Your task to perform on an android device: turn off picture-in-picture Image 0: 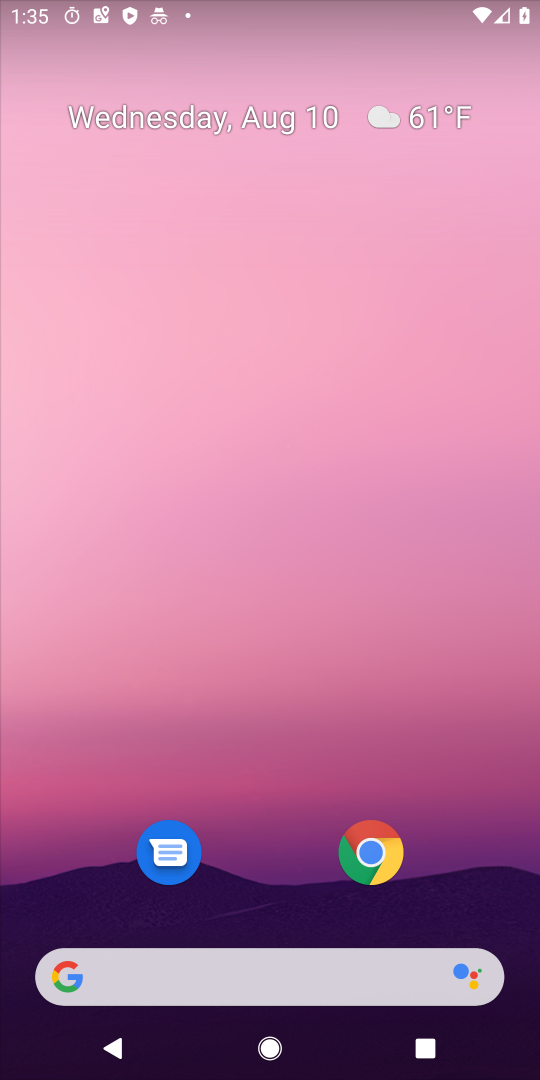
Step 0: click (252, 876)
Your task to perform on an android device: turn off picture-in-picture Image 1: 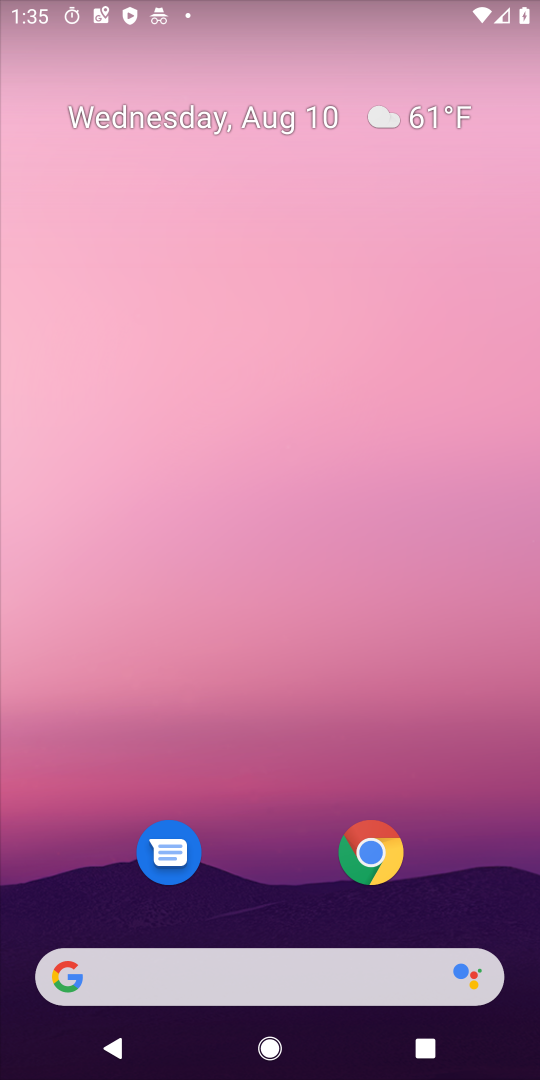
Step 1: click (355, 857)
Your task to perform on an android device: turn off picture-in-picture Image 2: 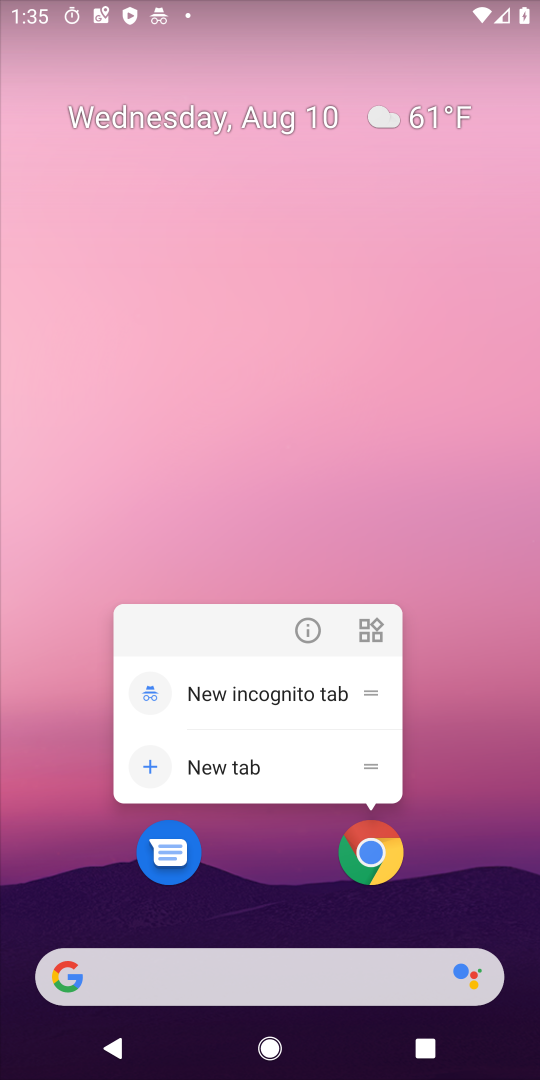
Step 2: click (303, 623)
Your task to perform on an android device: turn off picture-in-picture Image 3: 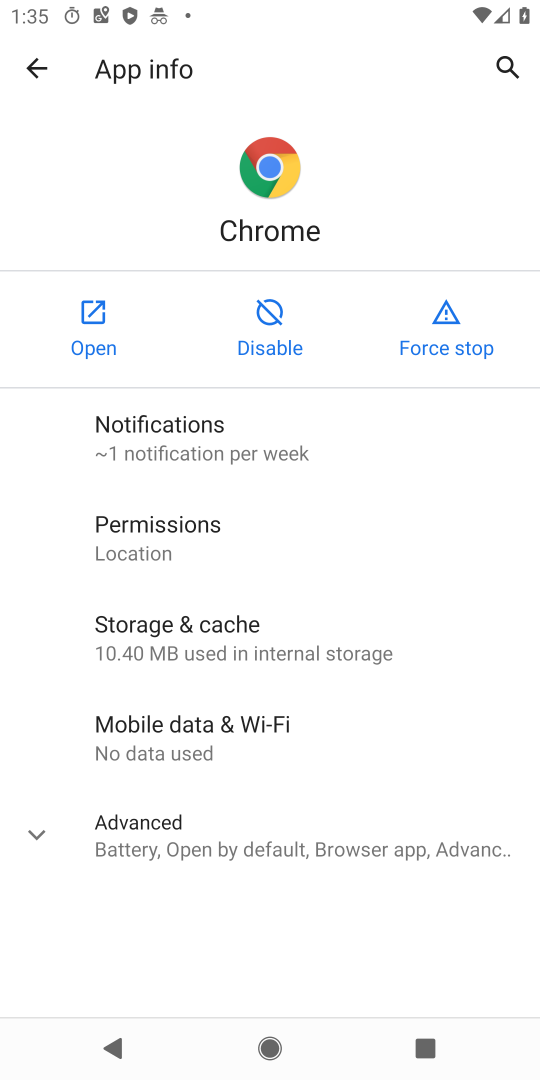
Step 3: click (173, 852)
Your task to perform on an android device: turn off picture-in-picture Image 4: 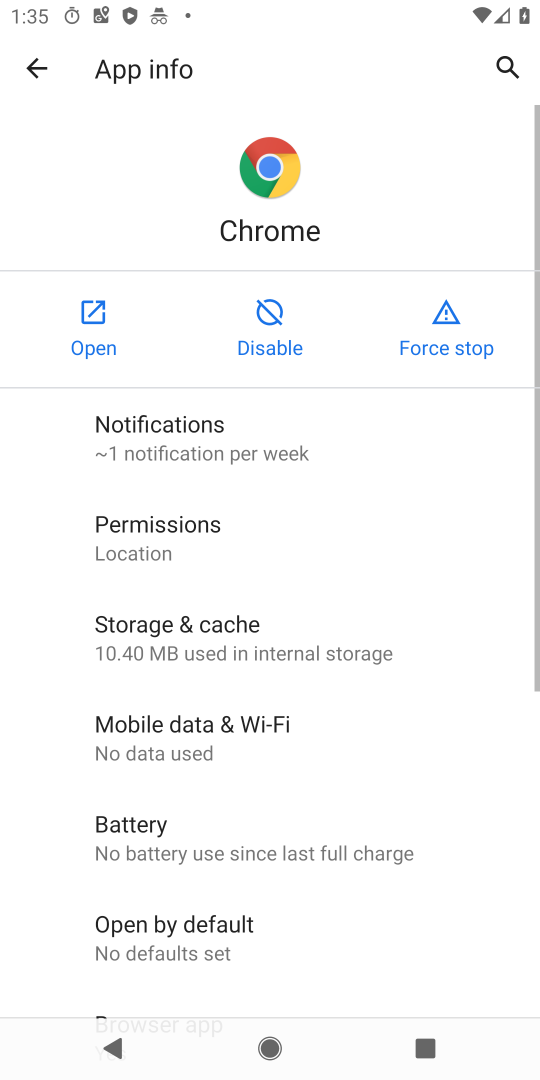
Step 4: drag from (367, 900) to (419, 248)
Your task to perform on an android device: turn off picture-in-picture Image 5: 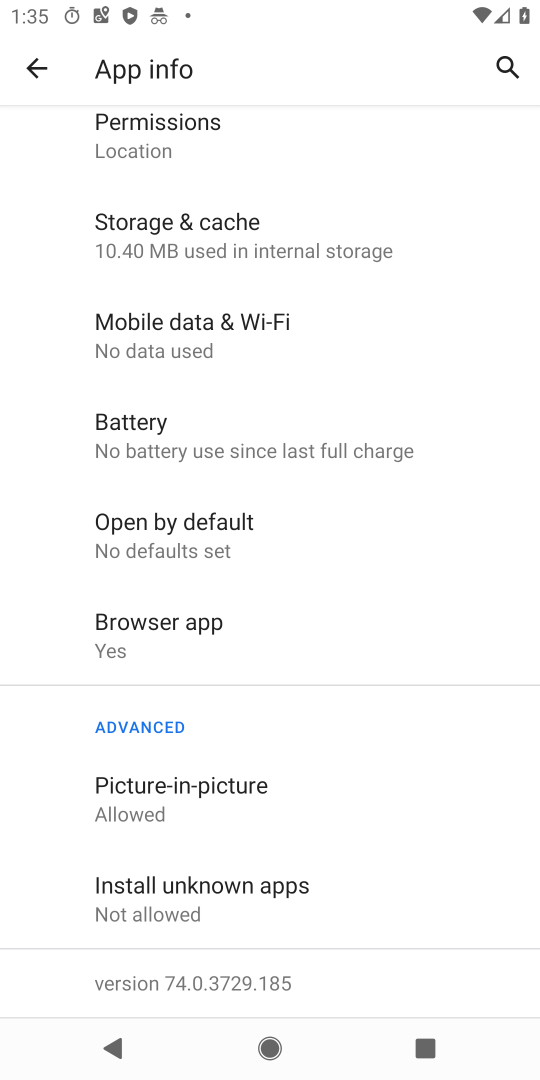
Step 5: click (173, 788)
Your task to perform on an android device: turn off picture-in-picture Image 6: 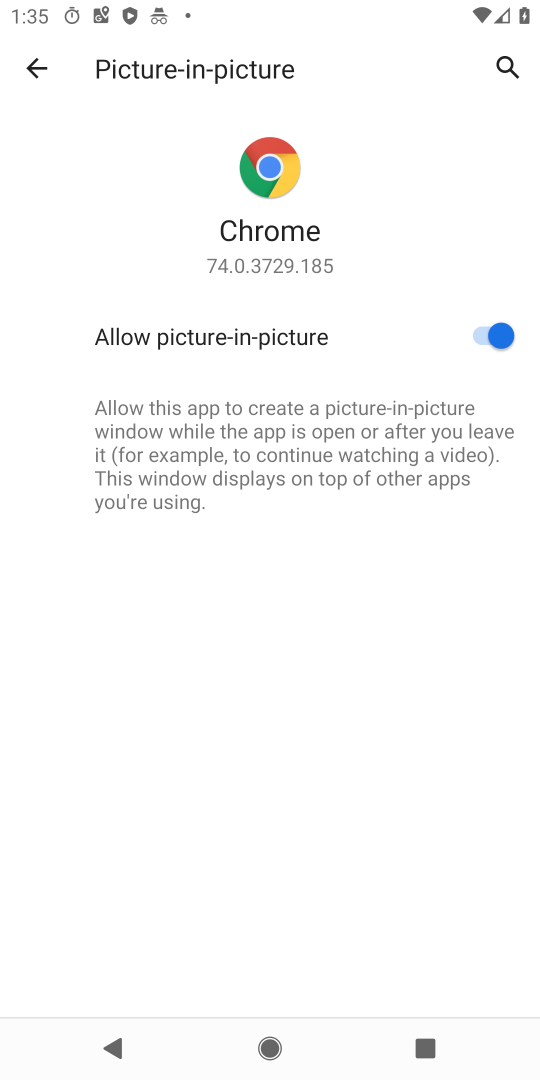
Step 6: click (502, 329)
Your task to perform on an android device: turn off picture-in-picture Image 7: 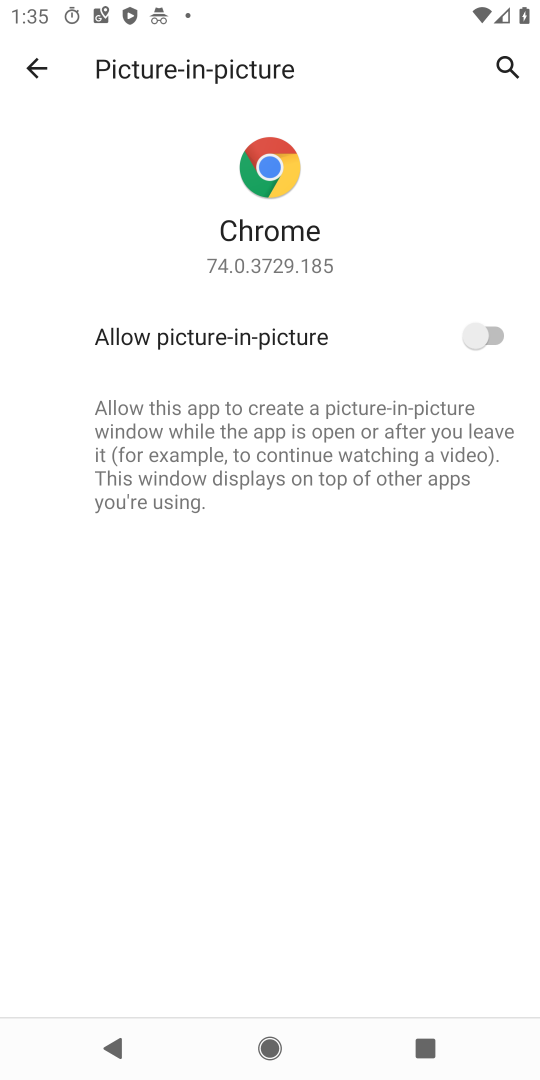
Step 7: task complete